Your task to perform on an android device: Go to display settings Image 0: 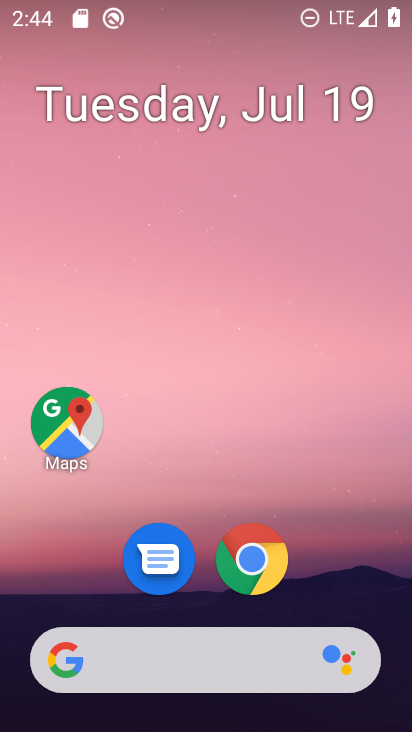
Step 0: drag from (213, 626) to (285, 161)
Your task to perform on an android device: Go to display settings Image 1: 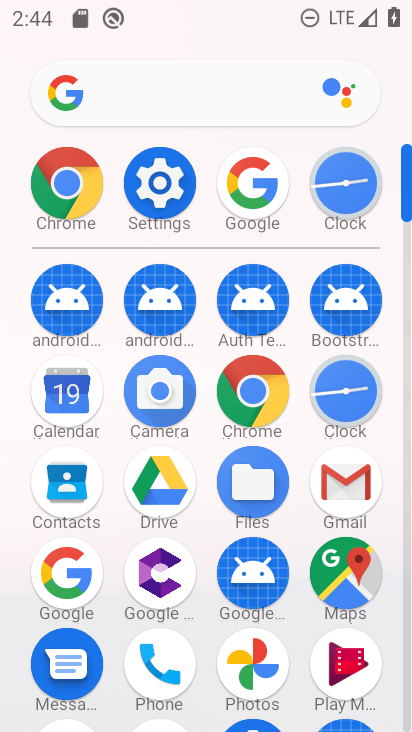
Step 1: click (147, 184)
Your task to perform on an android device: Go to display settings Image 2: 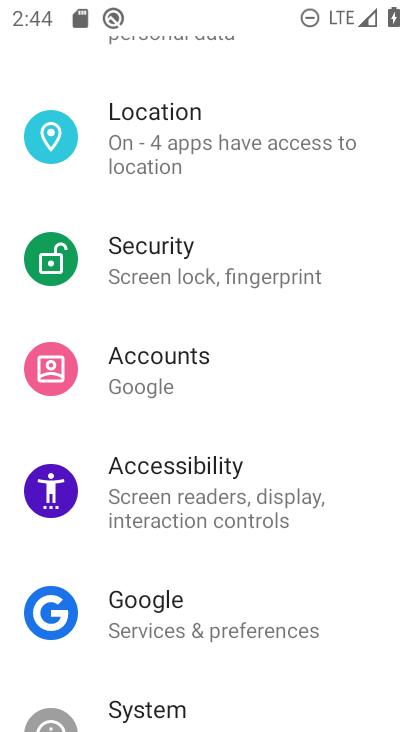
Step 2: drag from (250, 382) to (245, 581)
Your task to perform on an android device: Go to display settings Image 3: 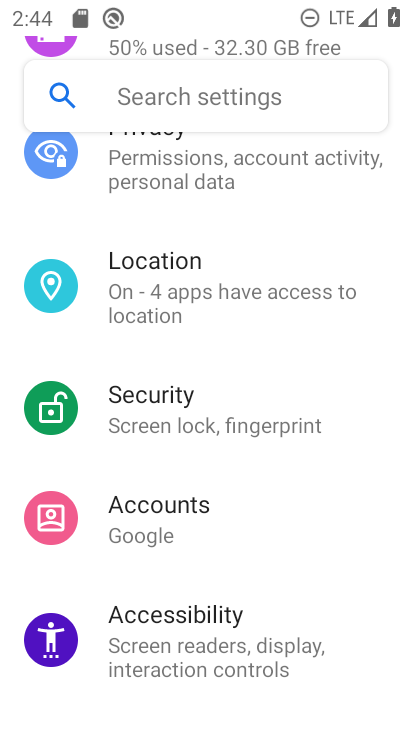
Step 3: drag from (147, 318) to (177, 534)
Your task to perform on an android device: Go to display settings Image 4: 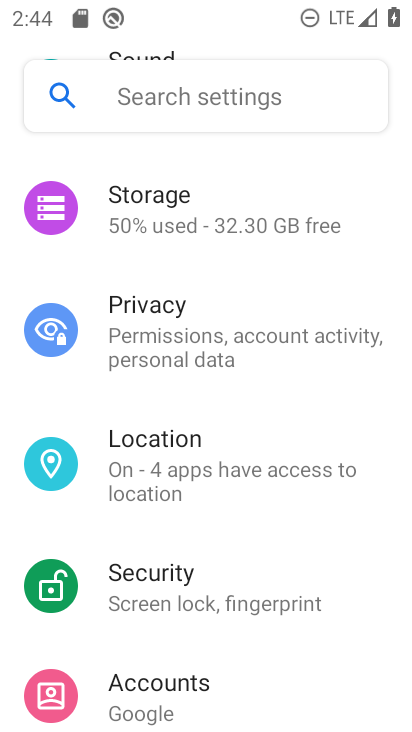
Step 4: drag from (172, 337) to (189, 607)
Your task to perform on an android device: Go to display settings Image 5: 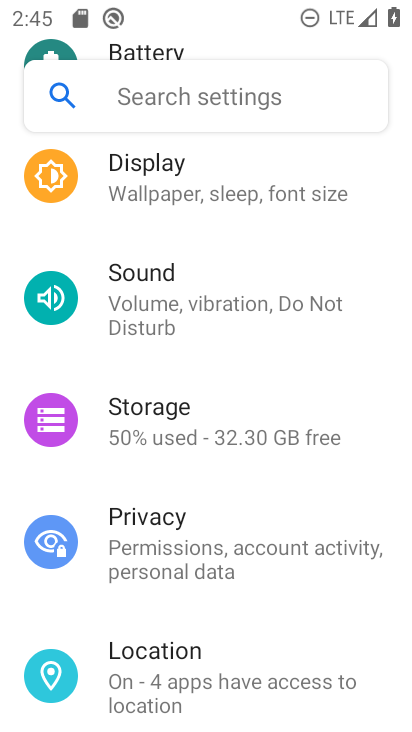
Step 5: click (174, 198)
Your task to perform on an android device: Go to display settings Image 6: 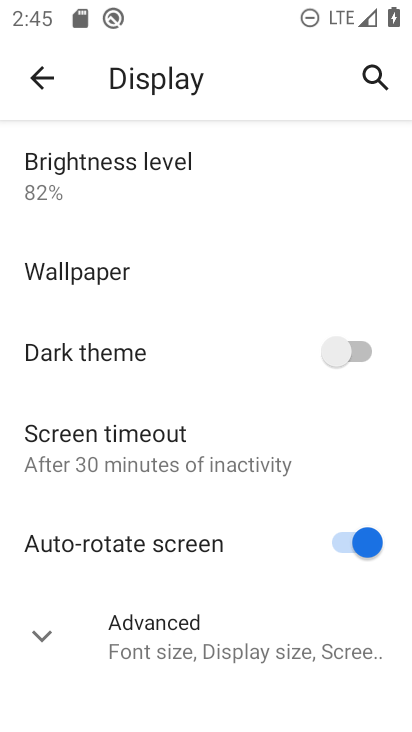
Step 6: task complete